Your task to perform on an android device: change notifications settings Image 0: 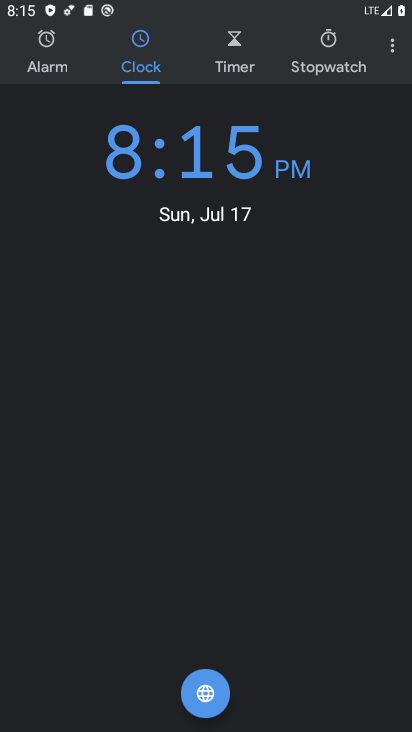
Step 0: drag from (115, 674) to (144, 46)
Your task to perform on an android device: change notifications settings Image 1: 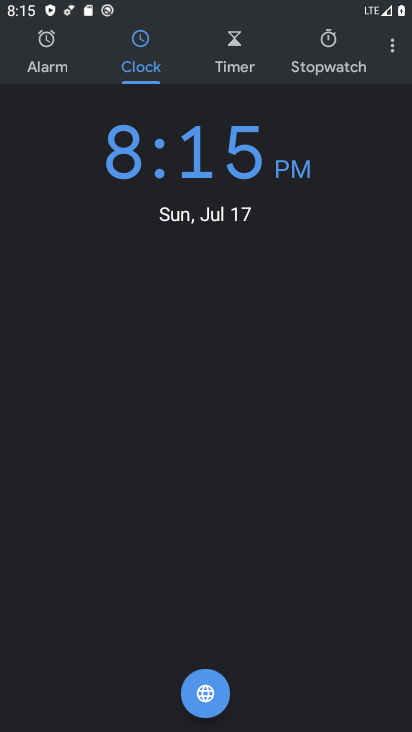
Step 1: press home button
Your task to perform on an android device: change notifications settings Image 2: 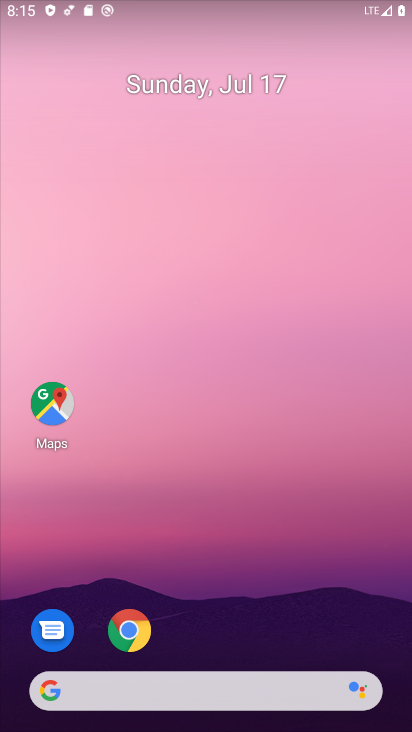
Step 2: drag from (226, 510) to (196, 0)
Your task to perform on an android device: change notifications settings Image 3: 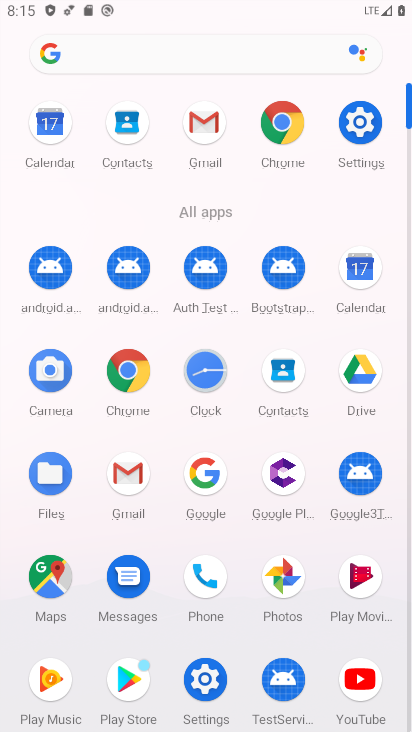
Step 3: click (202, 669)
Your task to perform on an android device: change notifications settings Image 4: 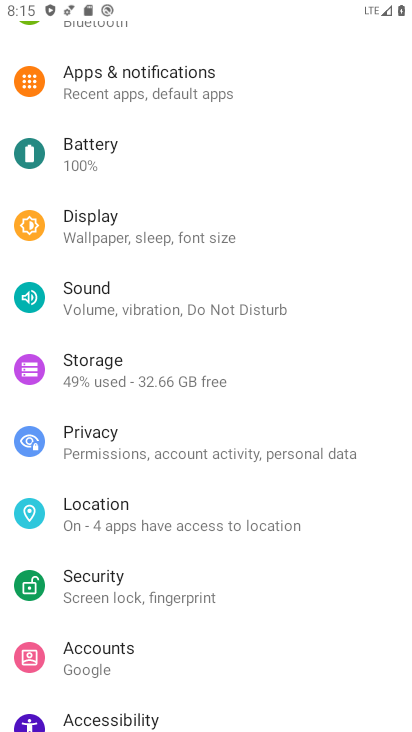
Step 4: click (189, 74)
Your task to perform on an android device: change notifications settings Image 5: 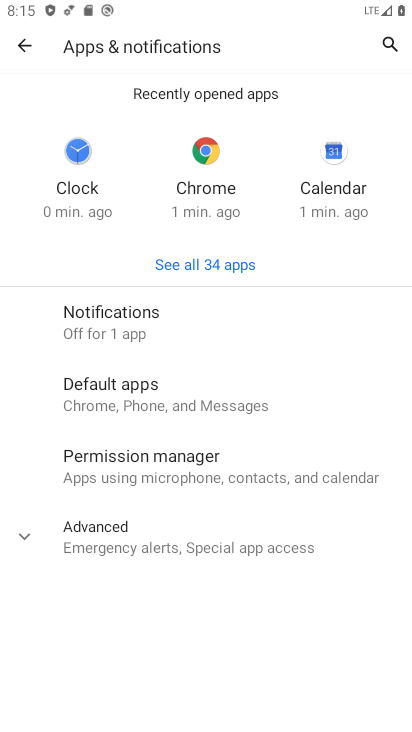
Step 5: click (148, 334)
Your task to perform on an android device: change notifications settings Image 6: 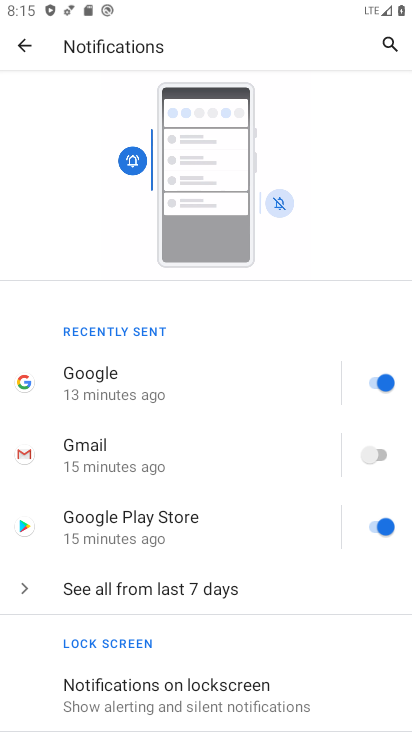
Step 6: click (134, 590)
Your task to perform on an android device: change notifications settings Image 7: 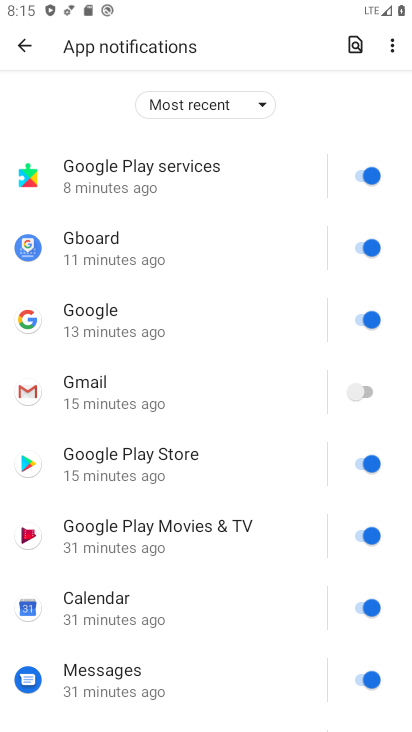
Step 7: click (359, 182)
Your task to perform on an android device: change notifications settings Image 8: 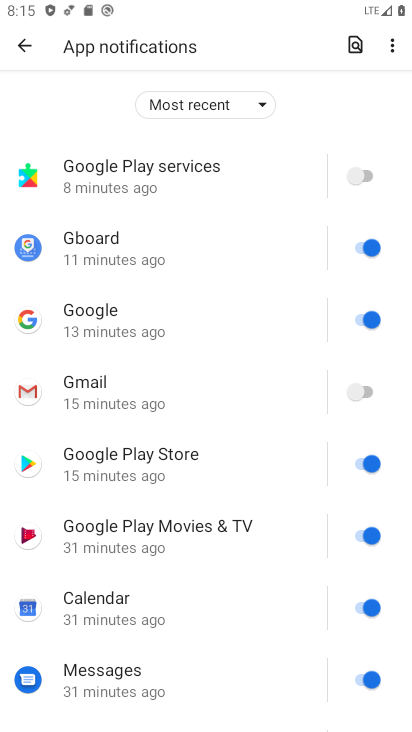
Step 8: click (342, 242)
Your task to perform on an android device: change notifications settings Image 9: 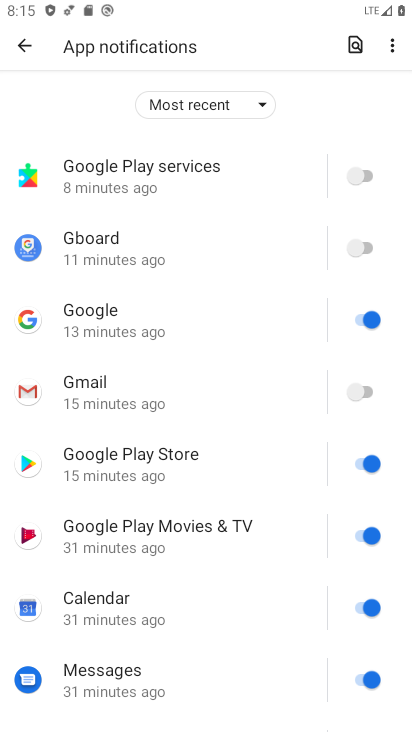
Step 9: click (361, 359)
Your task to perform on an android device: change notifications settings Image 10: 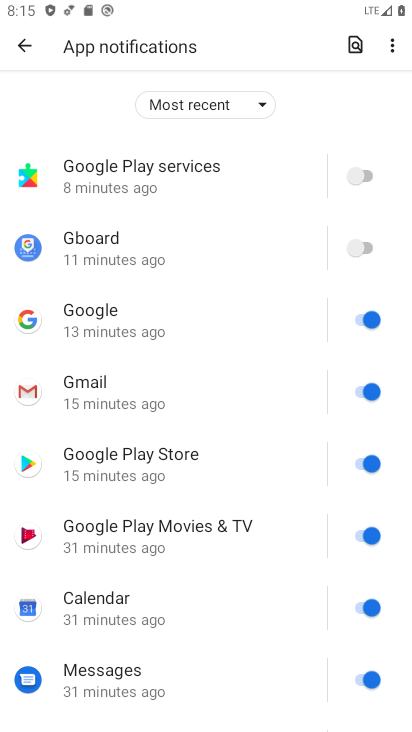
Step 10: click (359, 313)
Your task to perform on an android device: change notifications settings Image 11: 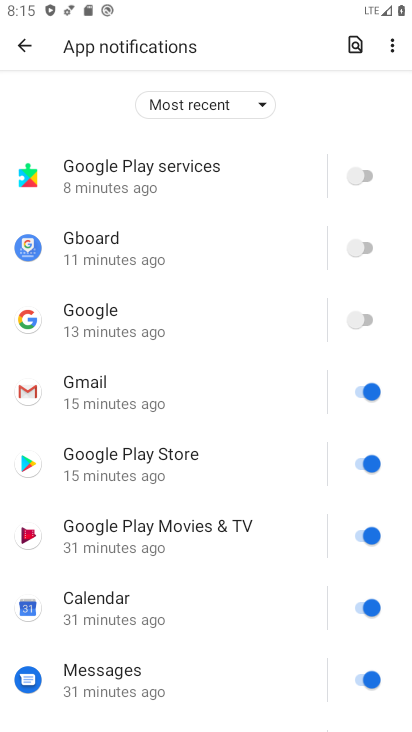
Step 11: click (351, 452)
Your task to perform on an android device: change notifications settings Image 12: 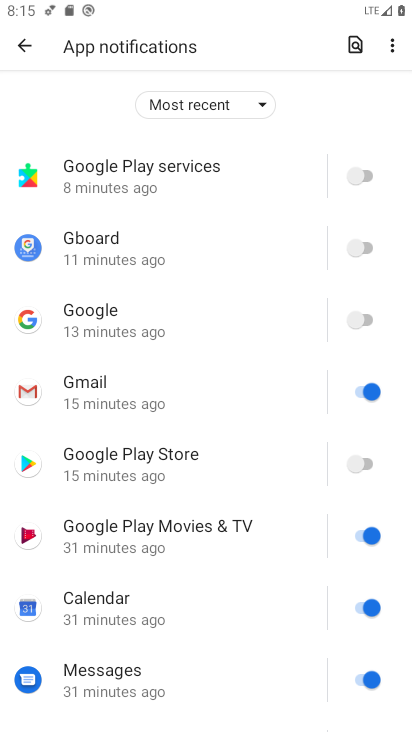
Step 12: click (347, 538)
Your task to perform on an android device: change notifications settings Image 13: 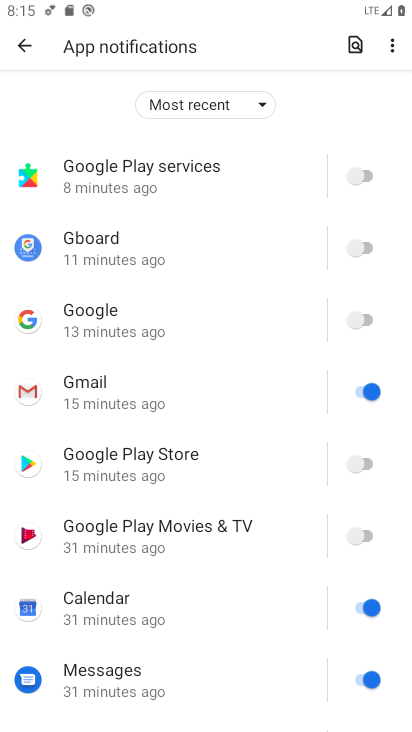
Step 13: click (354, 612)
Your task to perform on an android device: change notifications settings Image 14: 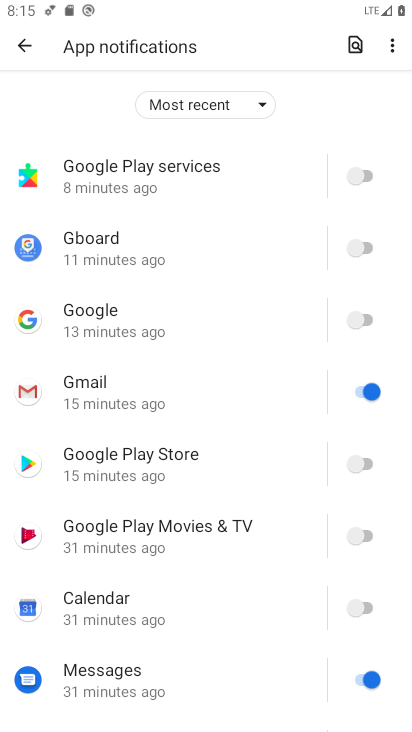
Step 14: click (356, 674)
Your task to perform on an android device: change notifications settings Image 15: 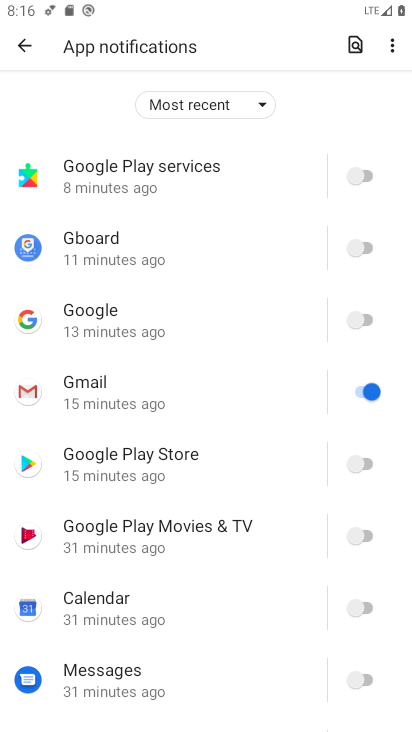
Step 15: drag from (219, 680) to (263, 364)
Your task to perform on an android device: change notifications settings Image 16: 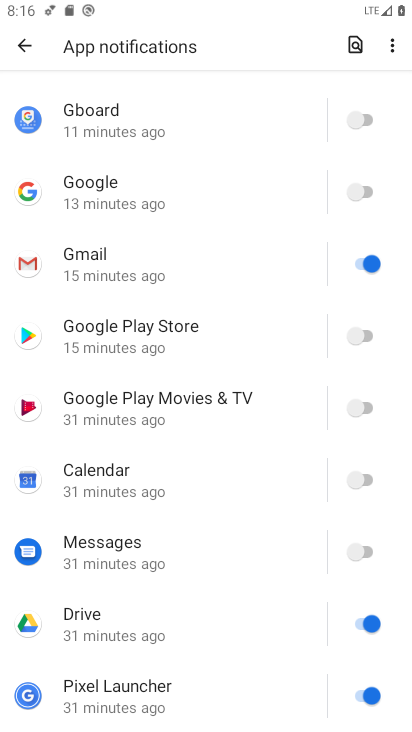
Step 16: click (343, 616)
Your task to perform on an android device: change notifications settings Image 17: 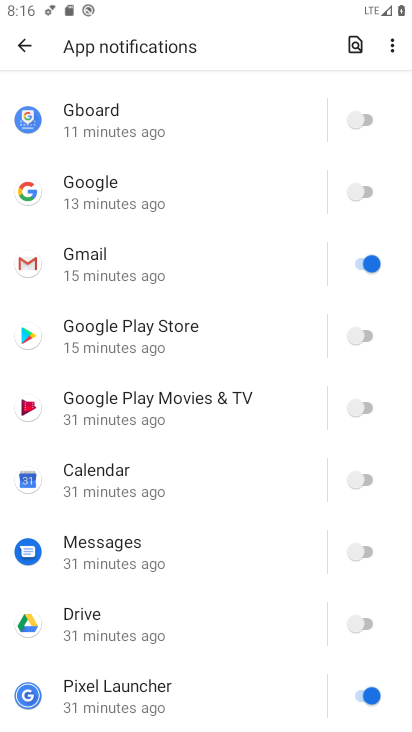
Step 17: click (352, 712)
Your task to perform on an android device: change notifications settings Image 18: 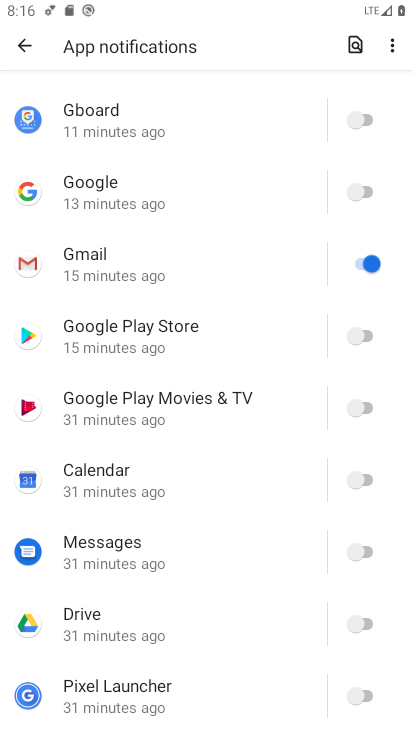
Step 18: task complete